Your task to perform on an android device: turn off translation in the chrome app Image 0: 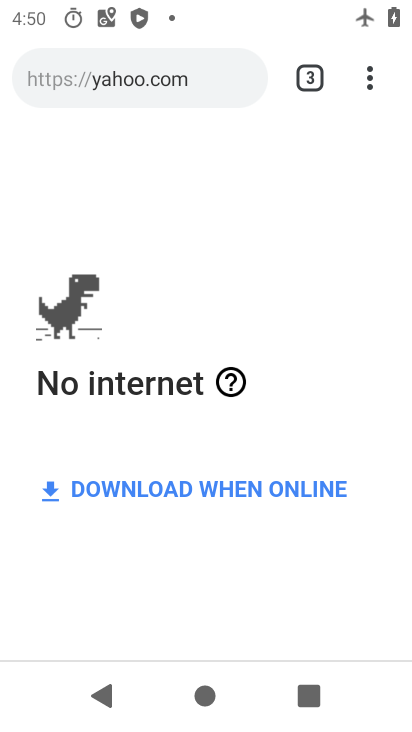
Step 0: press home button
Your task to perform on an android device: turn off translation in the chrome app Image 1: 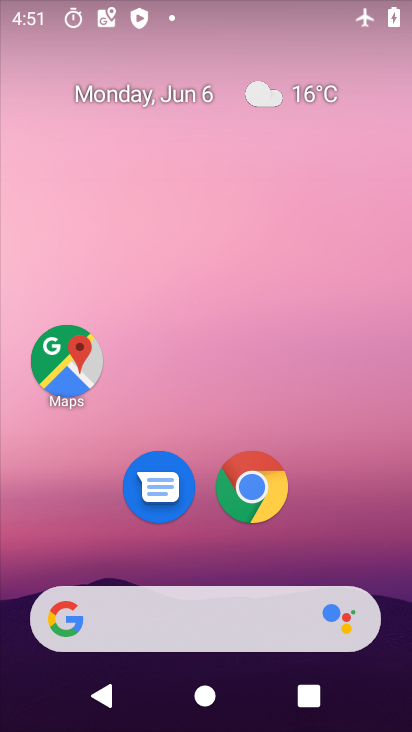
Step 1: click (251, 484)
Your task to perform on an android device: turn off translation in the chrome app Image 2: 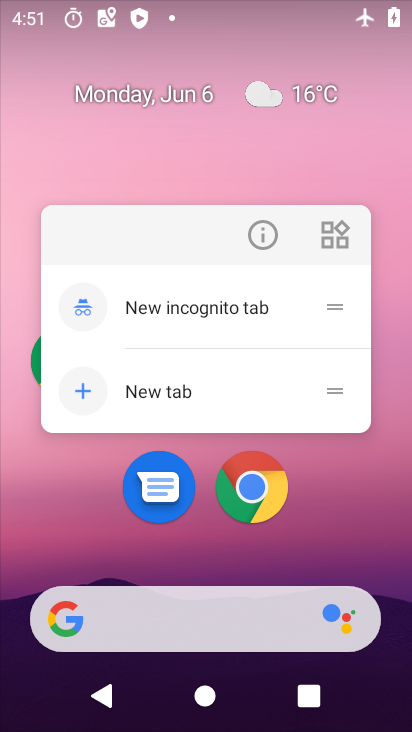
Step 2: click (250, 483)
Your task to perform on an android device: turn off translation in the chrome app Image 3: 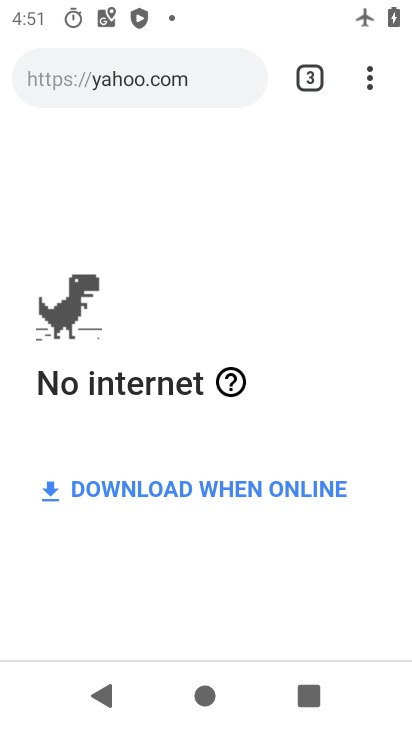
Step 3: drag from (366, 77) to (226, 559)
Your task to perform on an android device: turn off translation in the chrome app Image 4: 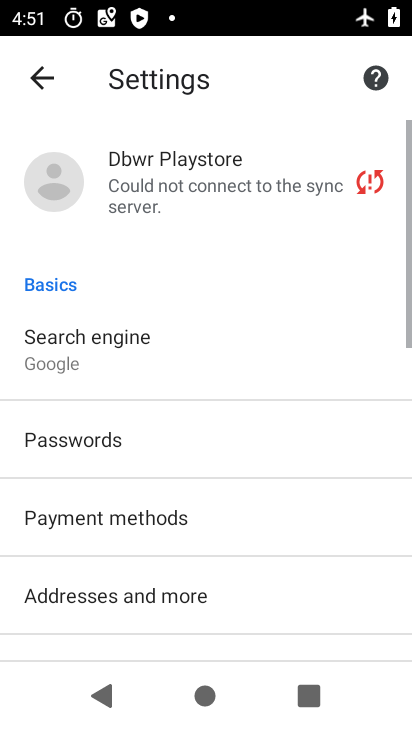
Step 4: drag from (219, 608) to (168, 41)
Your task to perform on an android device: turn off translation in the chrome app Image 5: 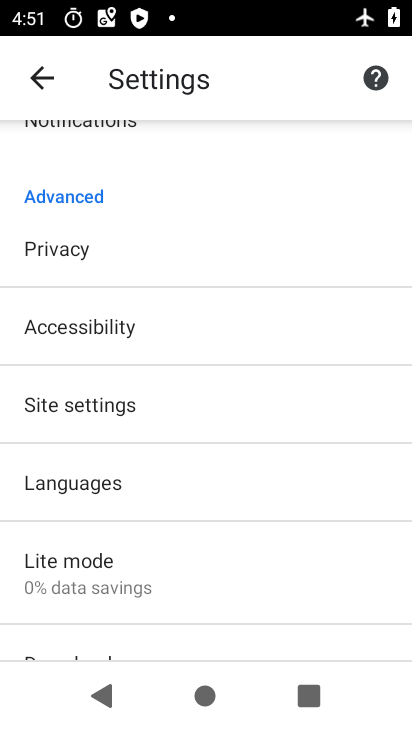
Step 5: click (112, 478)
Your task to perform on an android device: turn off translation in the chrome app Image 6: 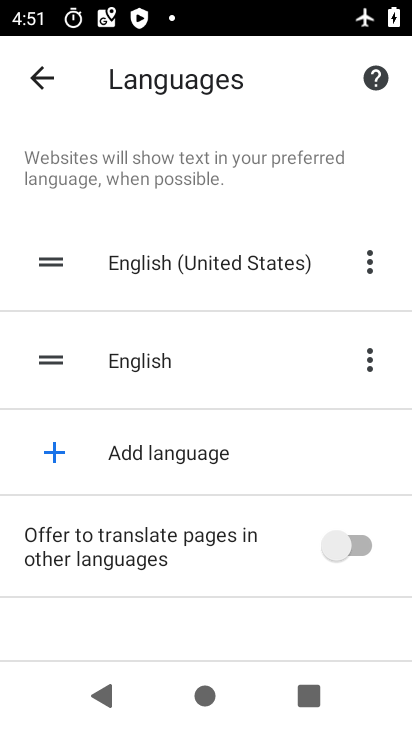
Step 6: task complete